Your task to perform on an android device: see sites visited before in the chrome app Image 0: 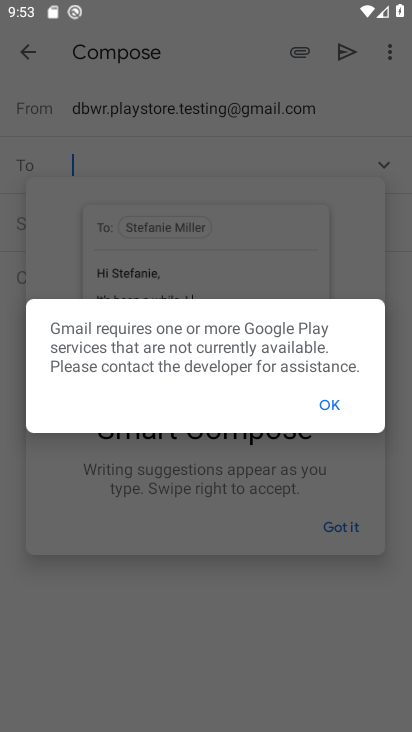
Step 0: press home button
Your task to perform on an android device: see sites visited before in the chrome app Image 1: 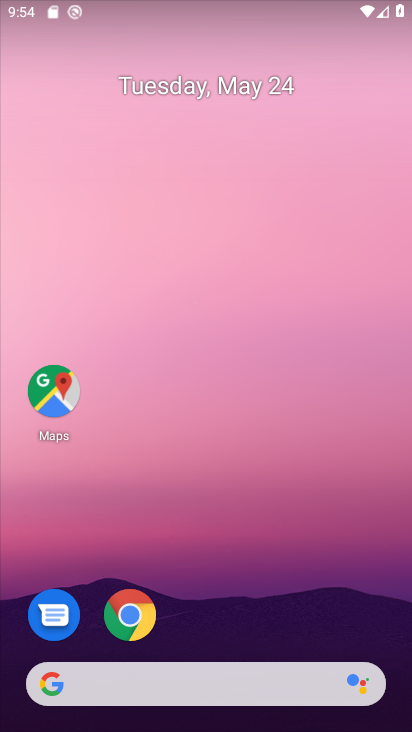
Step 1: drag from (369, 624) to (350, 192)
Your task to perform on an android device: see sites visited before in the chrome app Image 2: 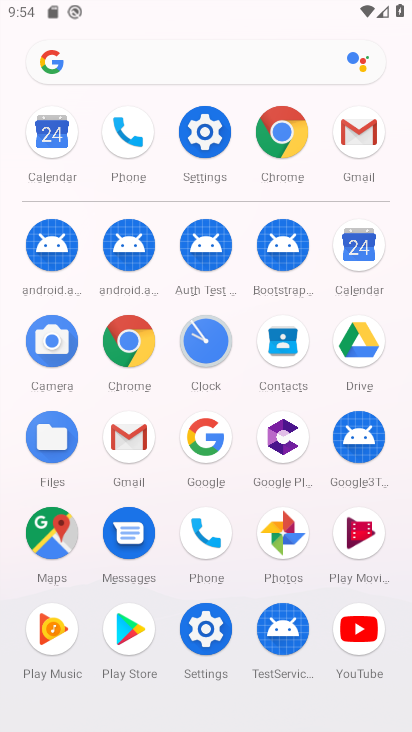
Step 2: click (147, 339)
Your task to perform on an android device: see sites visited before in the chrome app Image 3: 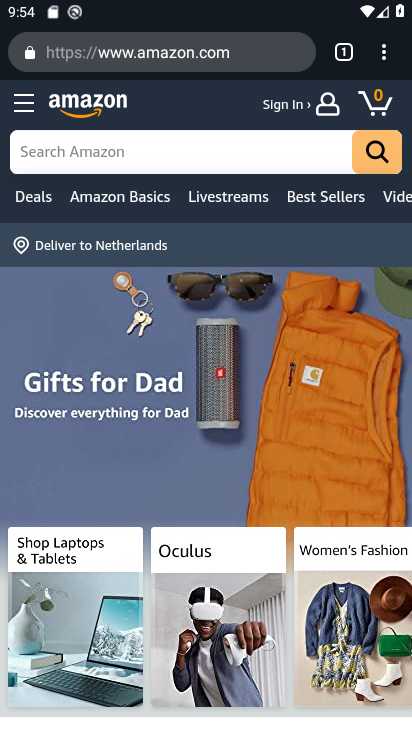
Step 3: click (384, 62)
Your task to perform on an android device: see sites visited before in the chrome app Image 4: 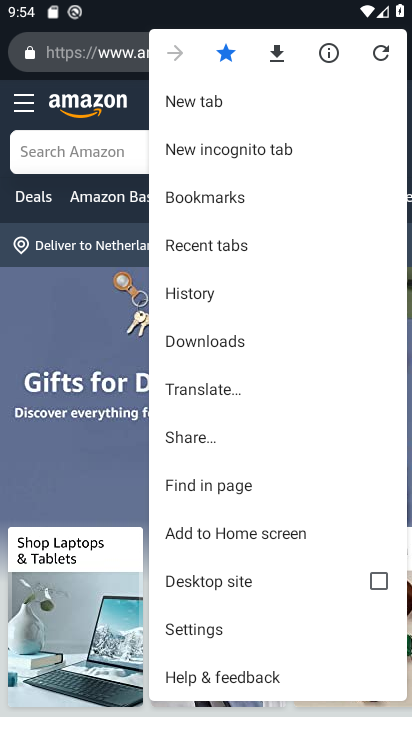
Step 4: drag from (316, 625) to (319, 464)
Your task to perform on an android device: see sites visited before in the chrome app Image 5: 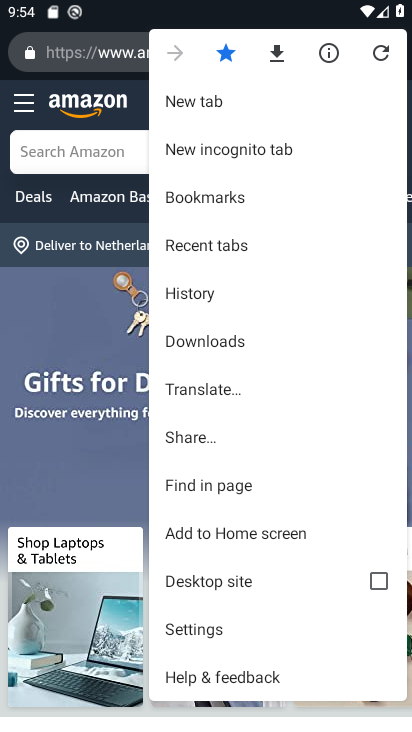
Step 5: click (201, 293)
Your task to perform on an android device: see sites visited before in the chrome app Image 6: 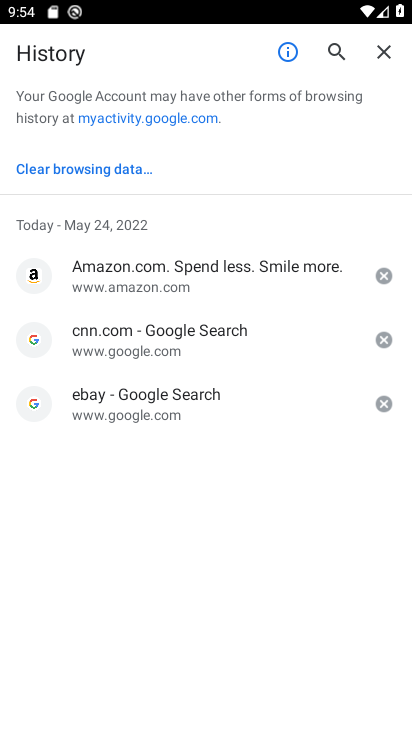
Step 6: task complete